Your task to perform on an android device: stop showing notifications on the lock screen Image 0: 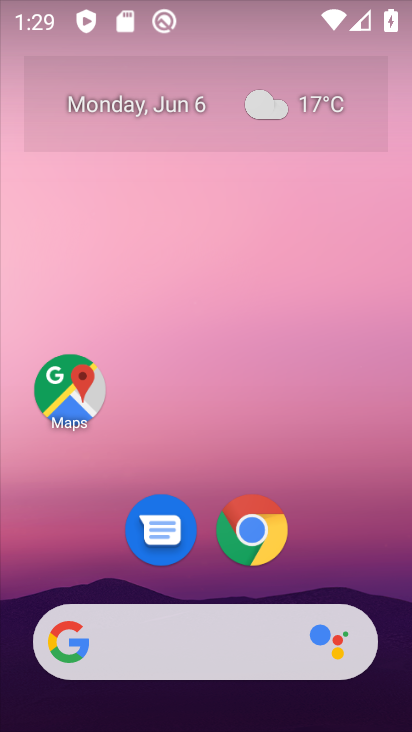
Step 0: drag from (327, 549) to (286, 205)
Your task to perform on an android device: stop showing notifications on the lock screen Image 1: 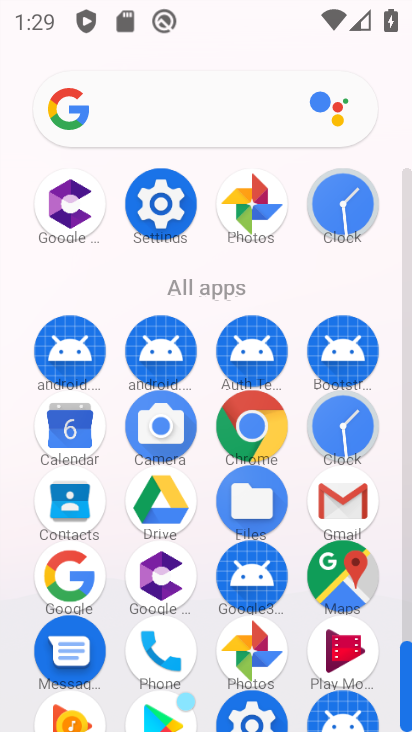
Step 1: click (149, 197)
Your task to perform on an android device: stop showing notifications on the lock screen Image 2: 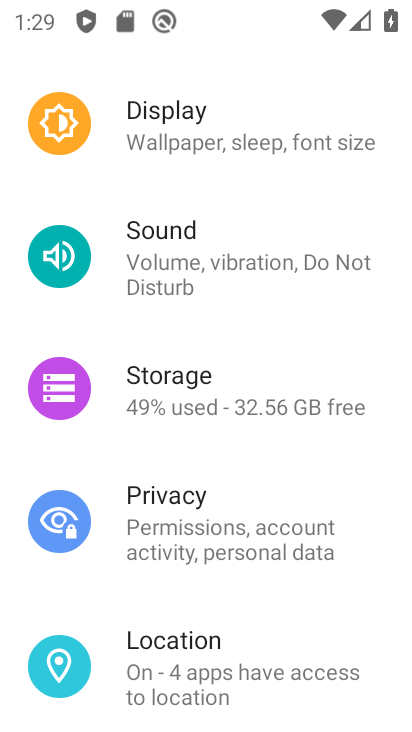
Step 2: drag from (186, 133) to (250, 580)
Your task to perform on an android device: stop showing notifications on the lock screen Image 3: 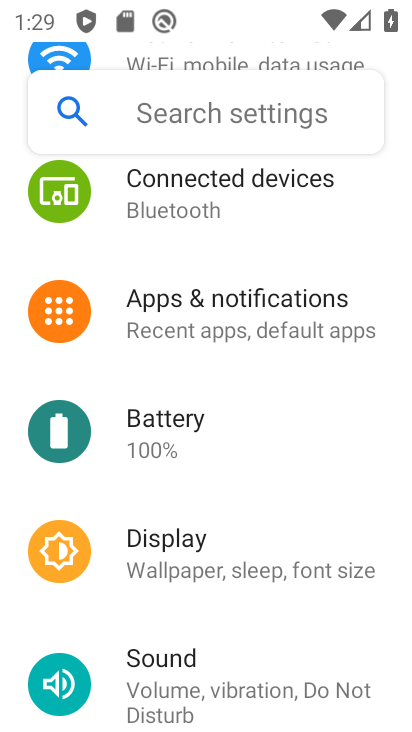
Step 3: click (205, 316)
Your task to perform on an android device: stop showing notifications on the lock screen Image 4: 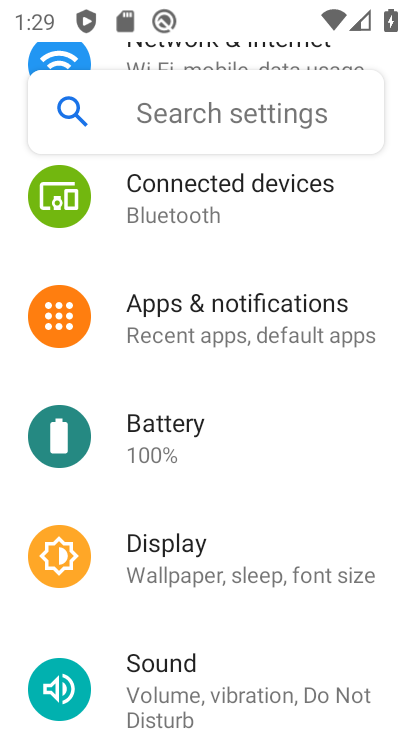
Step 4: click (217, 328)
Your task to perform on an android device: stop showing notifications on the lock screen Image 5: 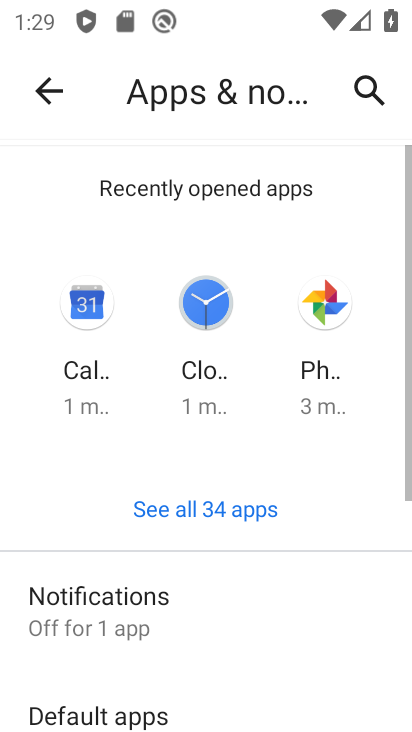
Step 5: drag from (185, 618) to (191, 246)
Your task to perform on an android device: stop showing notifications on the lock screen Image 6: 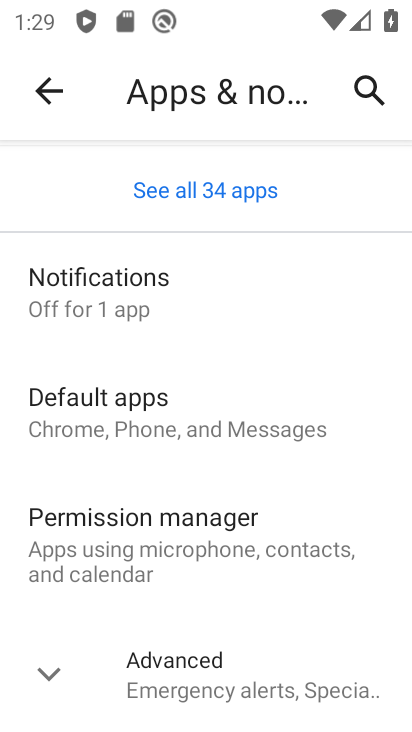
Step 6: click (200, 679)
Your task to perform on an android device: stop showing notifications on the lock screen Image 7: 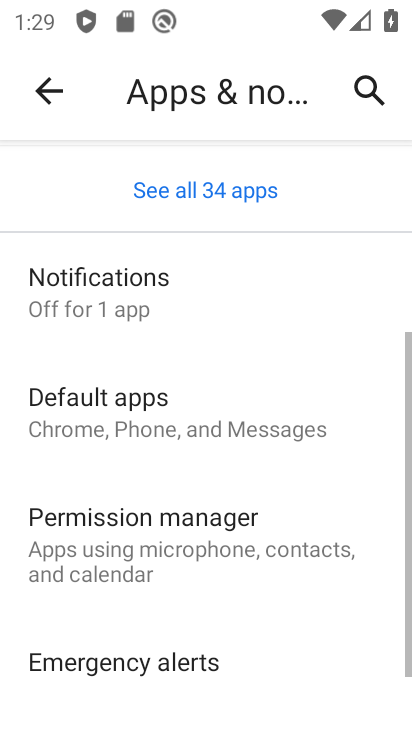
Step 7: drag from (197, 545) to (199, 258)
Your task to perform on an android device: stop showing notifications on the lock screen Image 8: 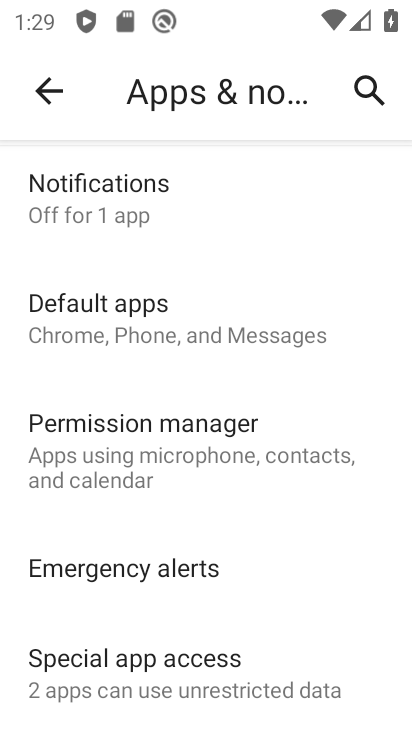
Step 8: drag from (141, 249) to (141, 673)
Your task to perform on an android device: stop showing notifications on the lock screen Image 9: 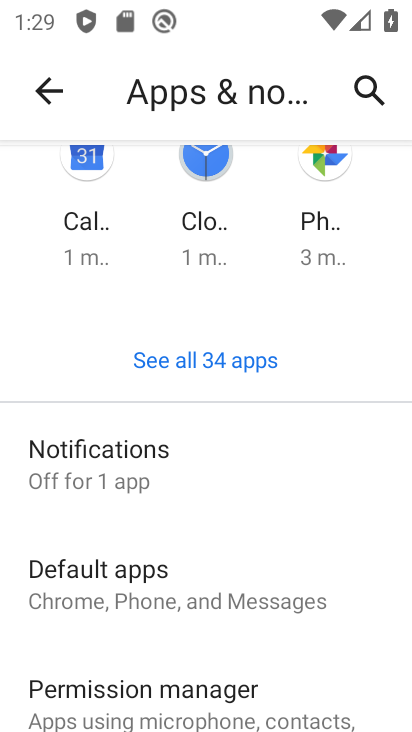
Step 9: click (158, 478)
Your task to perform on an android device: stop showing notifications on the lock screen Image 10: 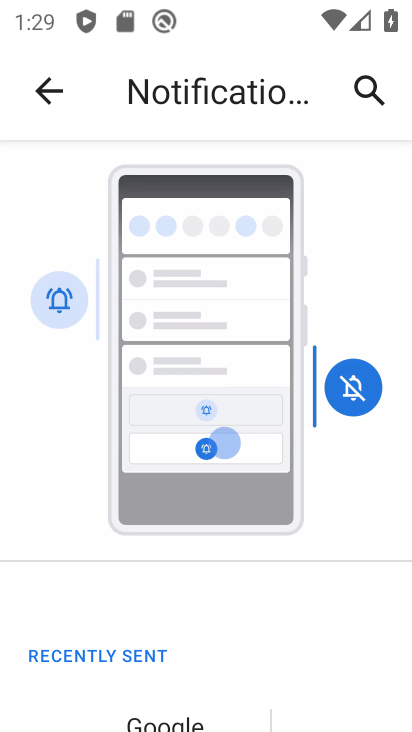
Step 10: click (234, 606)
Your task to perform on an android device: stop showing notifications on the lock screen Image 11: 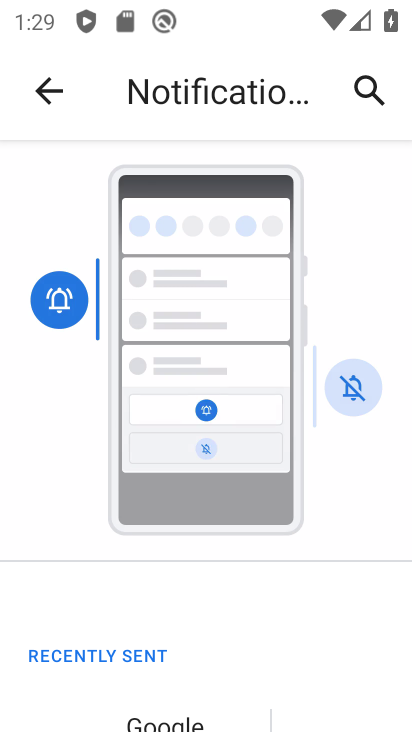
Step 11: drag from (195, 649) to (254, 139)
Your task to perform on an android device: stop showing notifications on the lock screen Image 12: 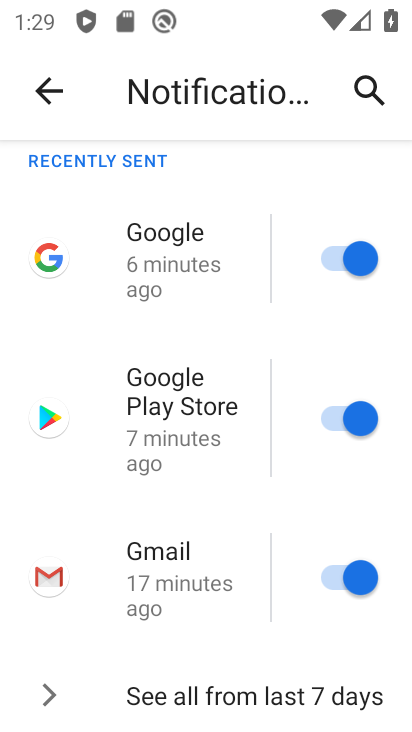
Step 12: drag from (211, 619) to (221, 191)
Your task to perform on an android device: stop showing notifications on the lock screen Image 13: 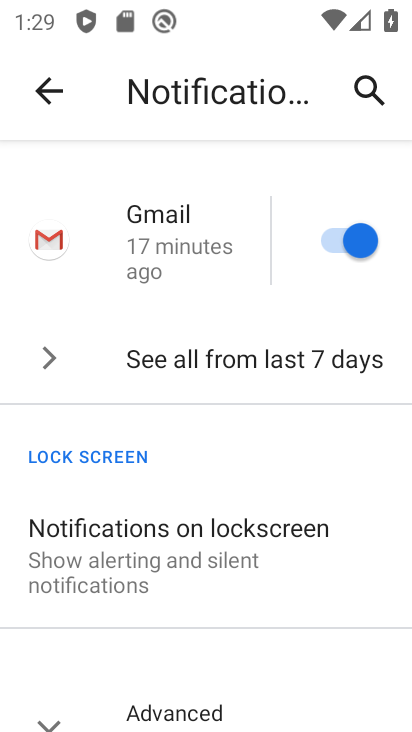
Step 13: click (150, 530)
Your task to perform on an android device: stop showing notifications on the lock screen Image 14: 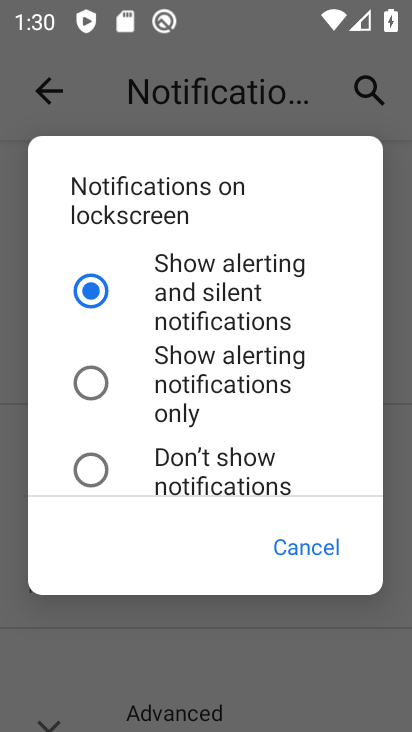
Step 14: click (154, 455)
Your task to perform on an android device: stop showing notifications on the lock screen Image 15: 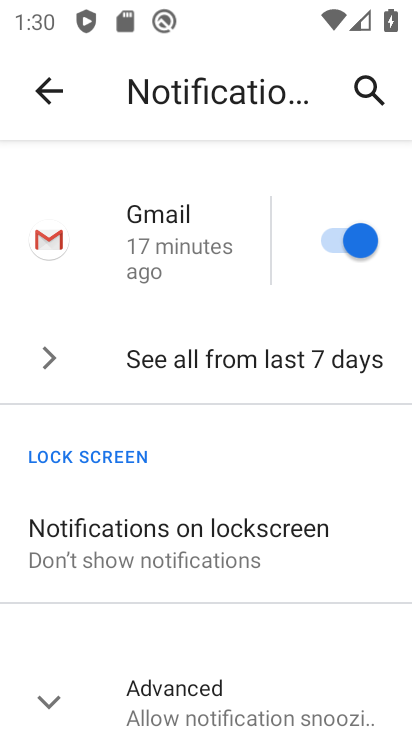
Step 15: task complete